Your task to perform on an android device: turn on javascript in the chrome app Image 0: 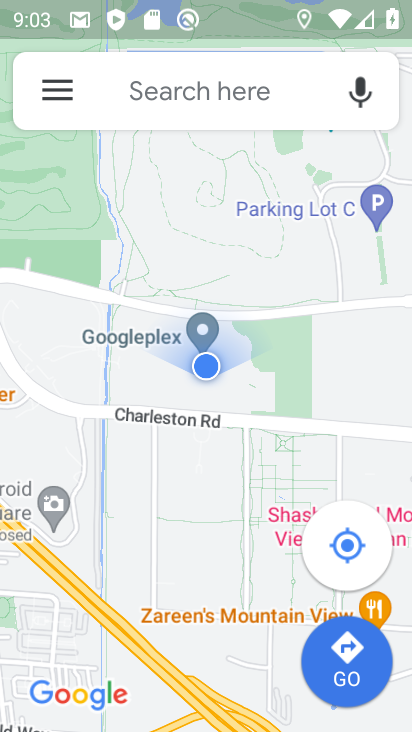
Step 0: press home button
Your task to perform on an android device: turn on javascript in the chrome app Image 1: 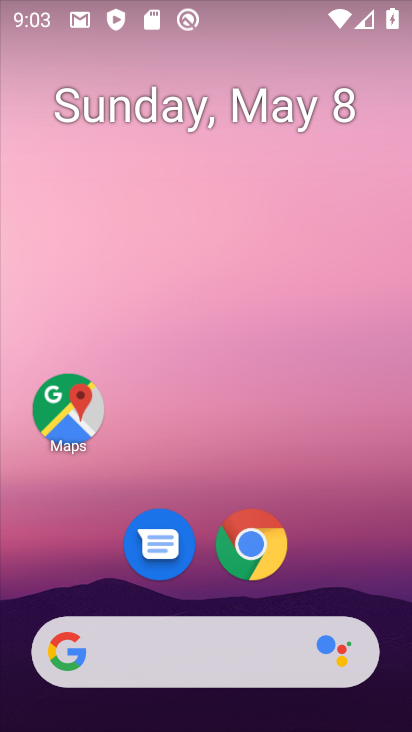
Step 1: click (248, 523)
Your task to perform on an android device: turn on javascript in the chrome app Image 2: 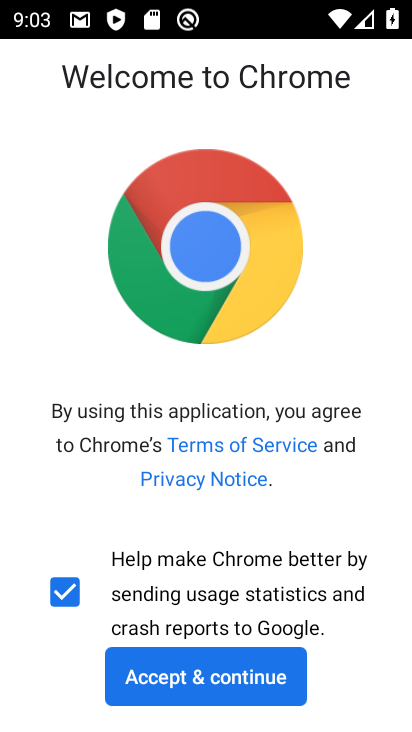
Step 2: click (199, 694)
Your task to perform on an android device: turn on javascript in the chrome app Image 3: 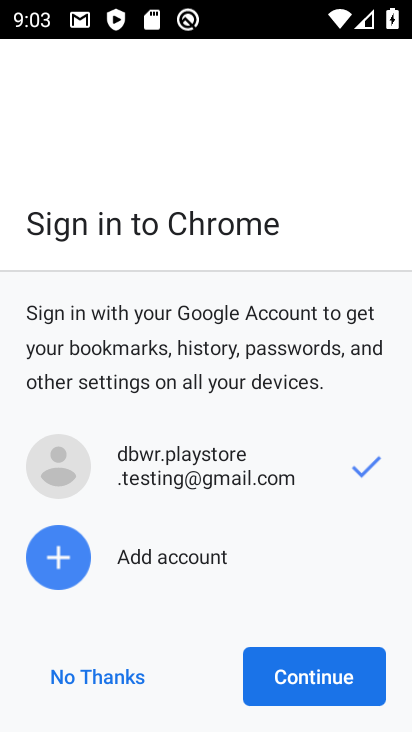
Step 3: click (320, 667)
Your task to perform on an android device: turn on javascript in the chrome app Image 4: 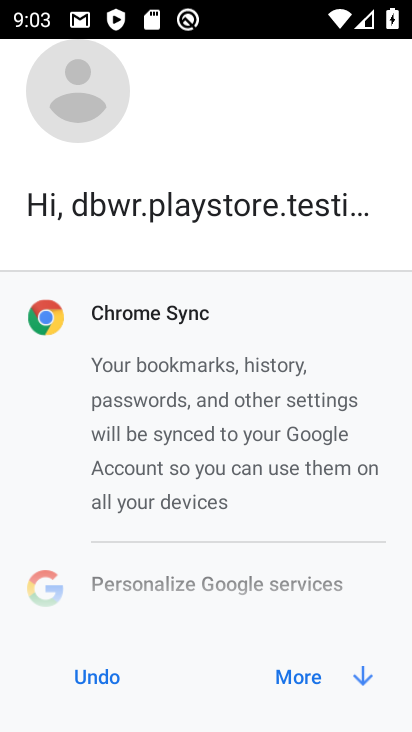
Step 4: click (320, 667)
Your task to perform on an android device: turn on javascript in the chrome app Image 5: 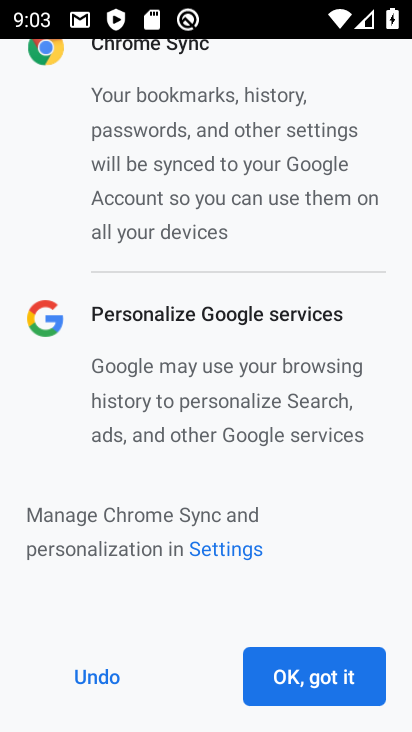
Step 5: click (320, 667)
Your task to perform on an android device: turn on javascript in the chrome app Image 6: 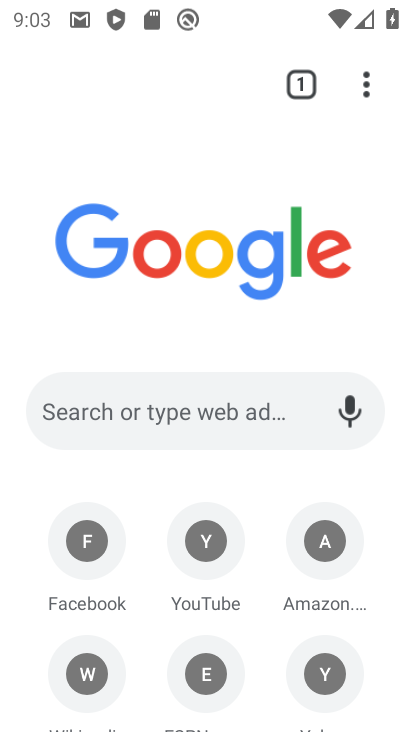
Step 6: click (370, 97)
Your task to perform on an android device: turn on javascript in the chrome app Image 7: 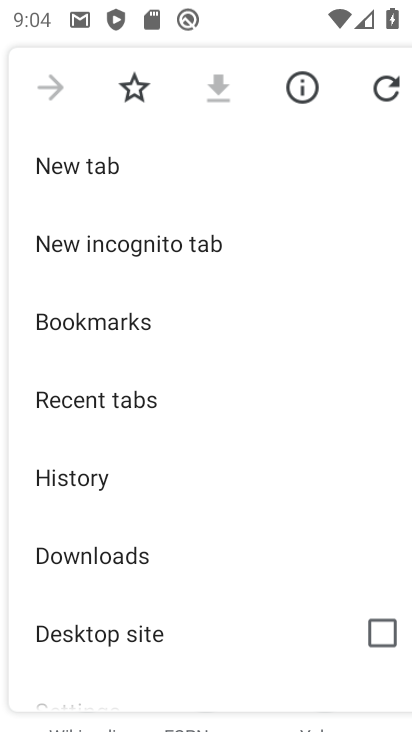
Step 7: drag from (181, 586) to (167, 299)
Your task to perform on an android device: turn on javascript in the chrome app Image 8: 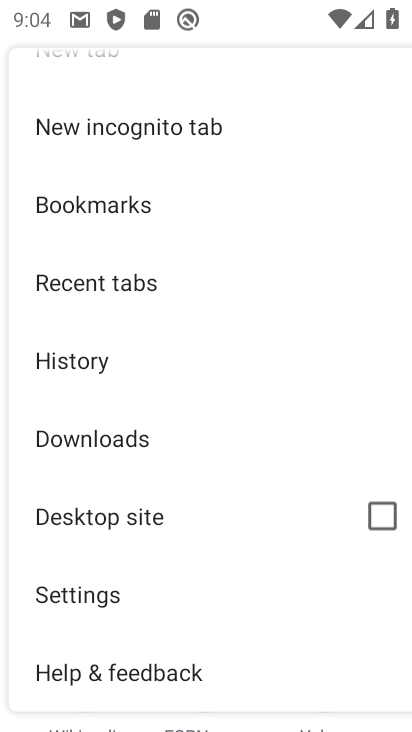
Step 8: click (143, 582)
Your task to perform on an android device: turn on javascript in the chrome app Image 9: 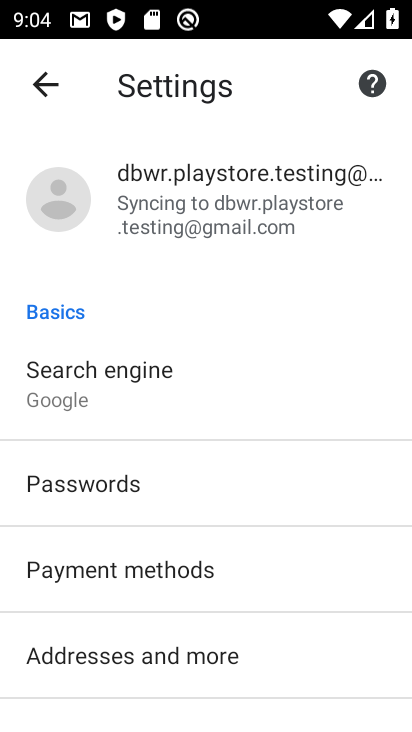
Step 9: drag from (152, 605) to (236, 184)
Your task to perform on an android device: turn on javascript in the chrome app Image 10: 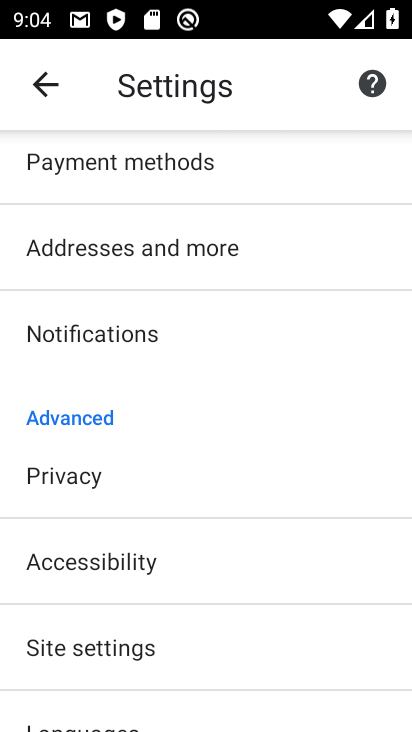
Step 10: drag from (186, 656) to (186, 602)
Your task to perform on an android device: turn on javascript in the chrome app Image 11: 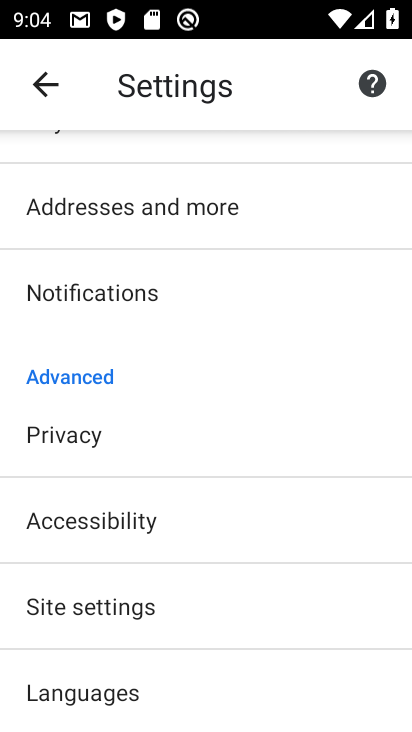
Step 11: click (186, 602)
Your task to perform on an android device: turn on javascript in the chrome app Image 12: 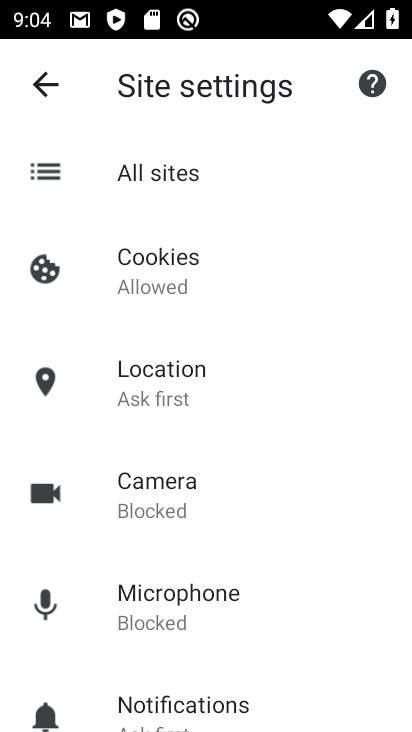
Step 12: drag from (173, 676) to (175, 370)
Your task to perform on an android device: turn on javascript in the chrome app Image 13: 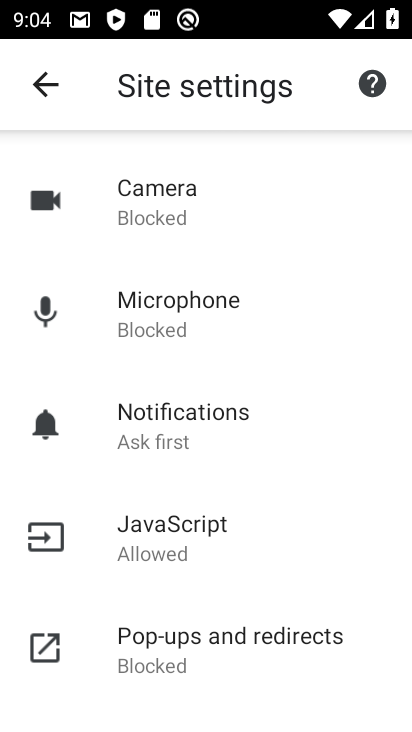
Step 13: click (209, 559)
Your task to perform on an android device: turn on javascript in the chrome app Image 14: 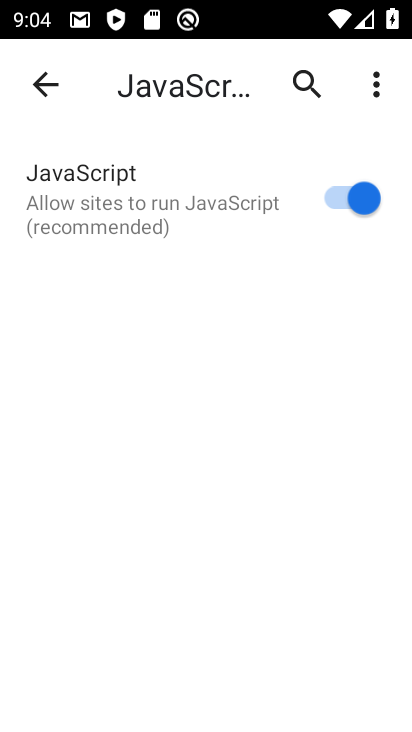
Step 14: task complete